Your task to perform on an android device: open app "Booking.com: Hotels and more" (install if not already installed) Image 0: 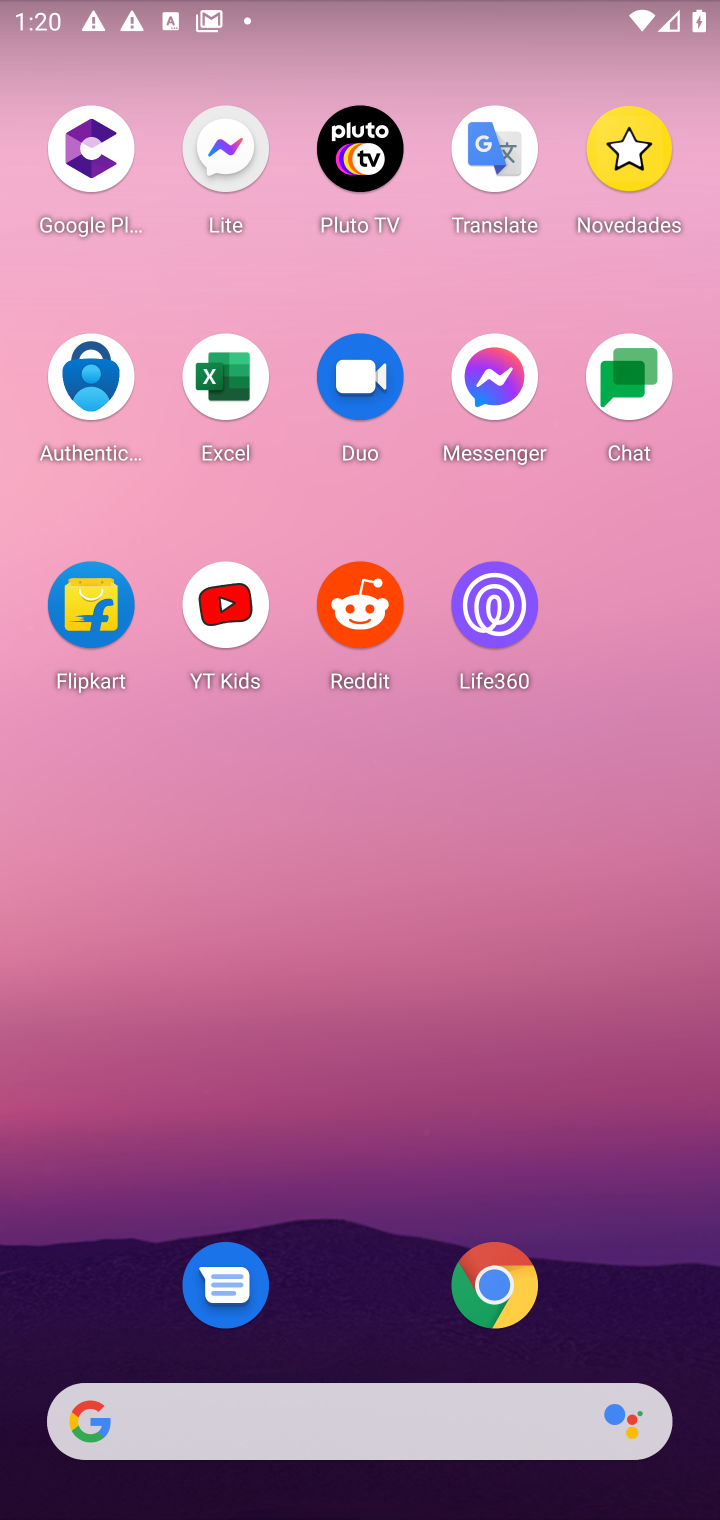
Step 0: drag from (385, 1050) to (429, 182)
Your task to perform on an android device: open app "Booking.com: Hotels and more" (install if not already installed) Image 1: 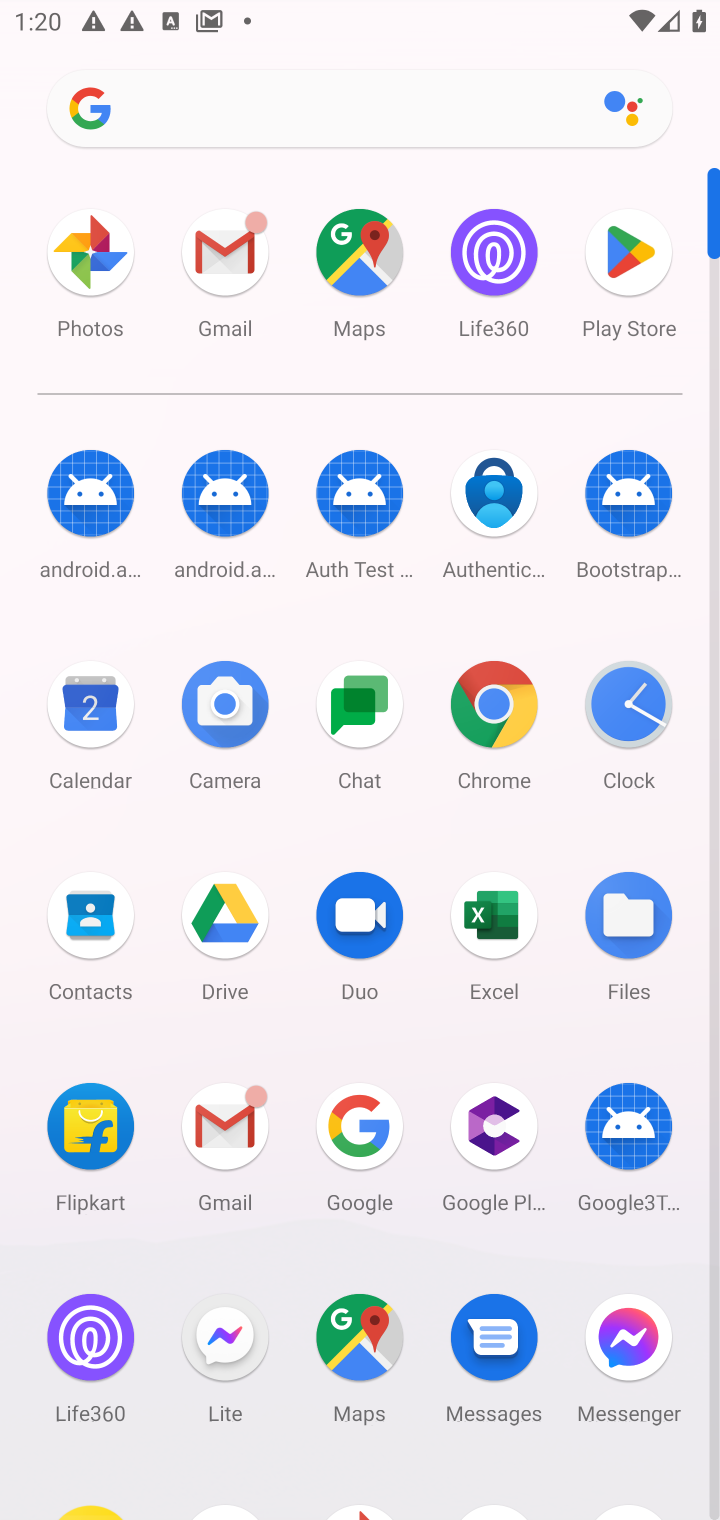
Step 1: drag from (440, 1236) to (437, 409)
Your task to perform on an android device: open app "Booking.com: Hotels and more" (install if not already installed) Image 2: 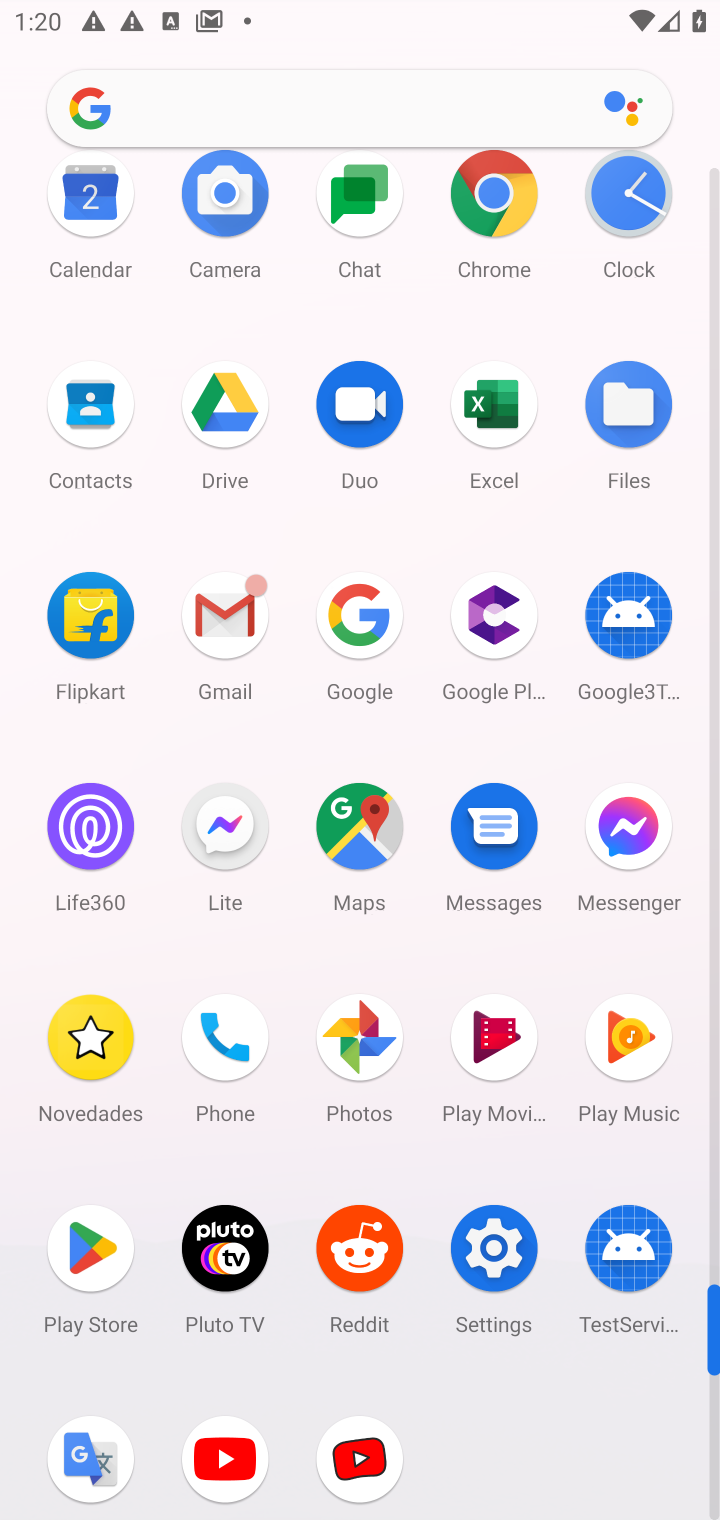
Step 2: click (96, 1266)
Your task to perform on an android device: open app "Booking.com: Hotels and more" (install if not already installed) Image 3: 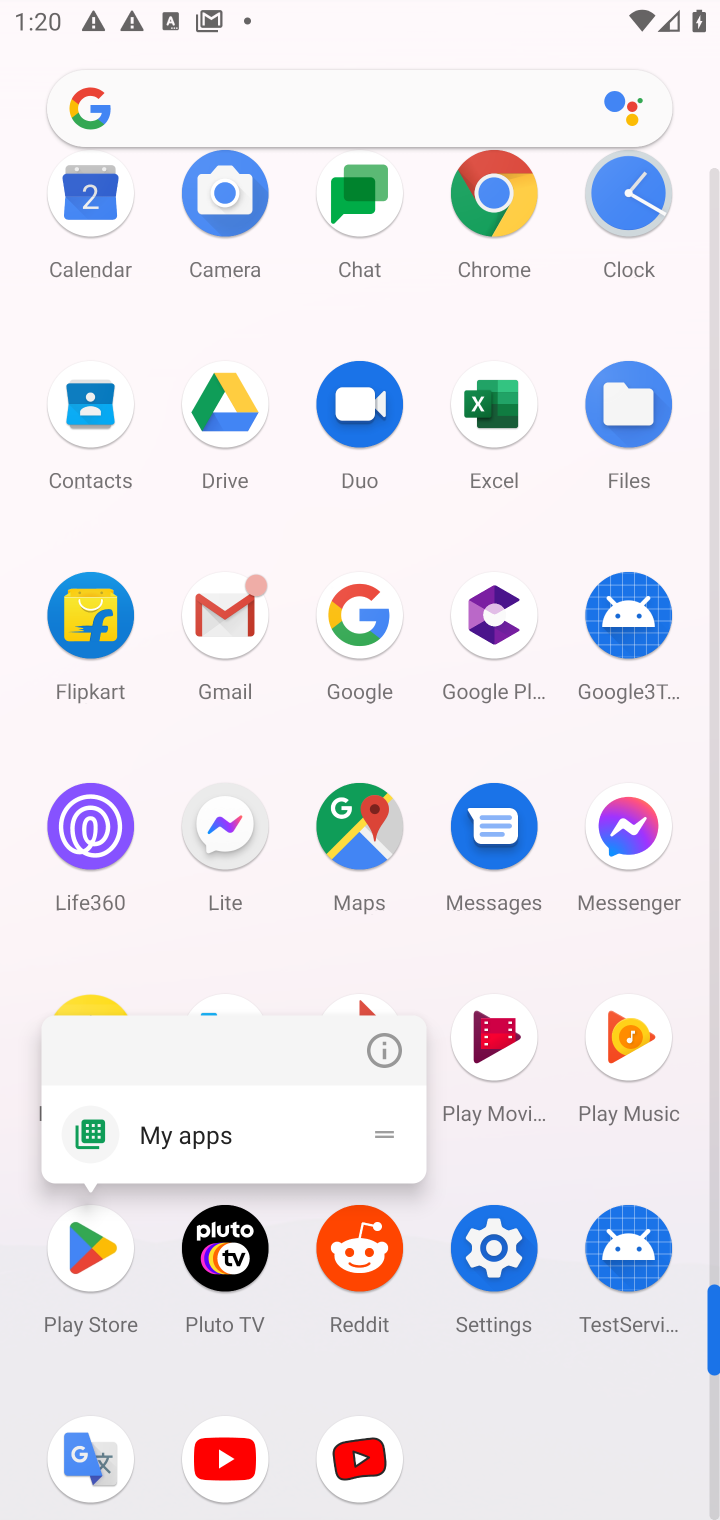
Step 3: click (106, 1255)
Your task to perform on an android device: open app "Booking.com: Hotels and more" (install if not already installed) Image 4: 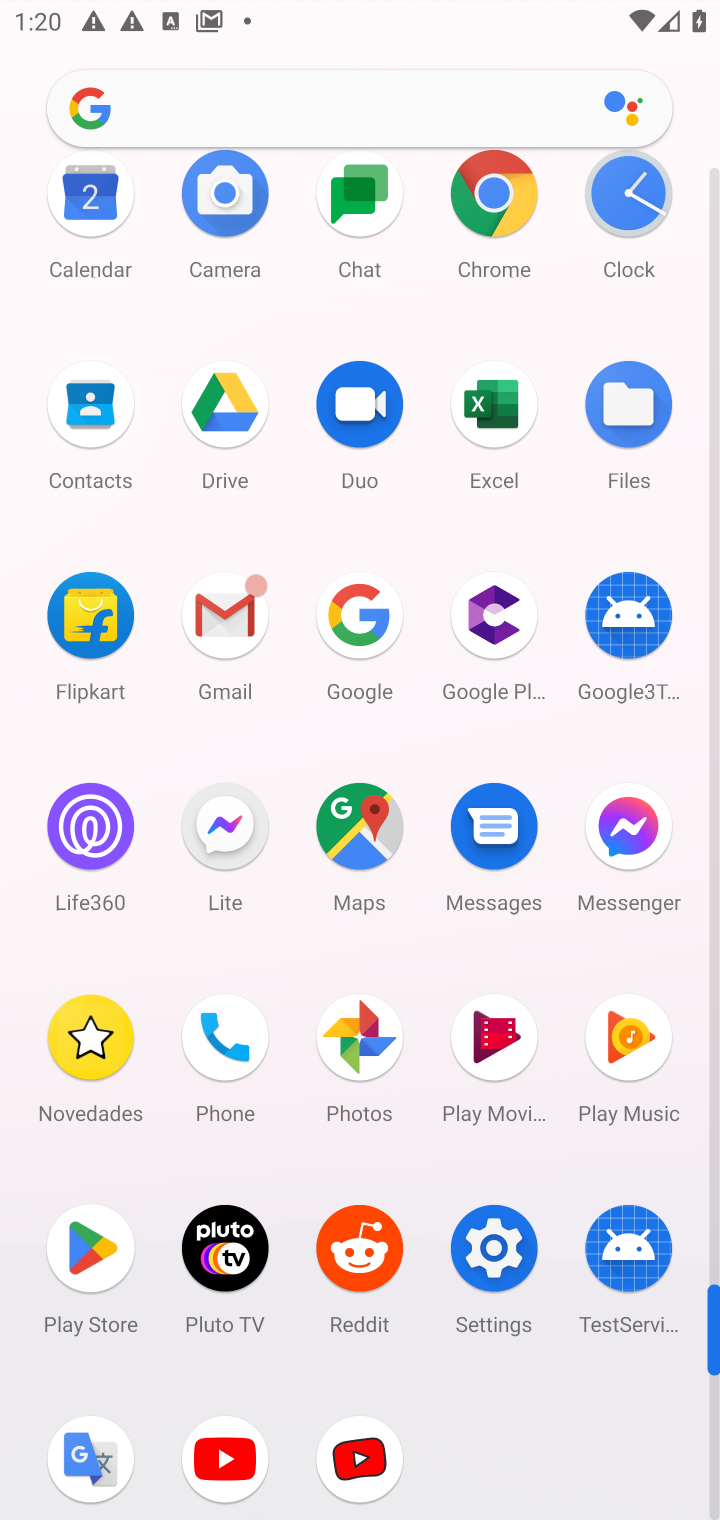
Step 4: click (94, 1255)
Your task to perform on an android device: open app "Booking.com: Hotels and more" (install if not already installed) Image 5: 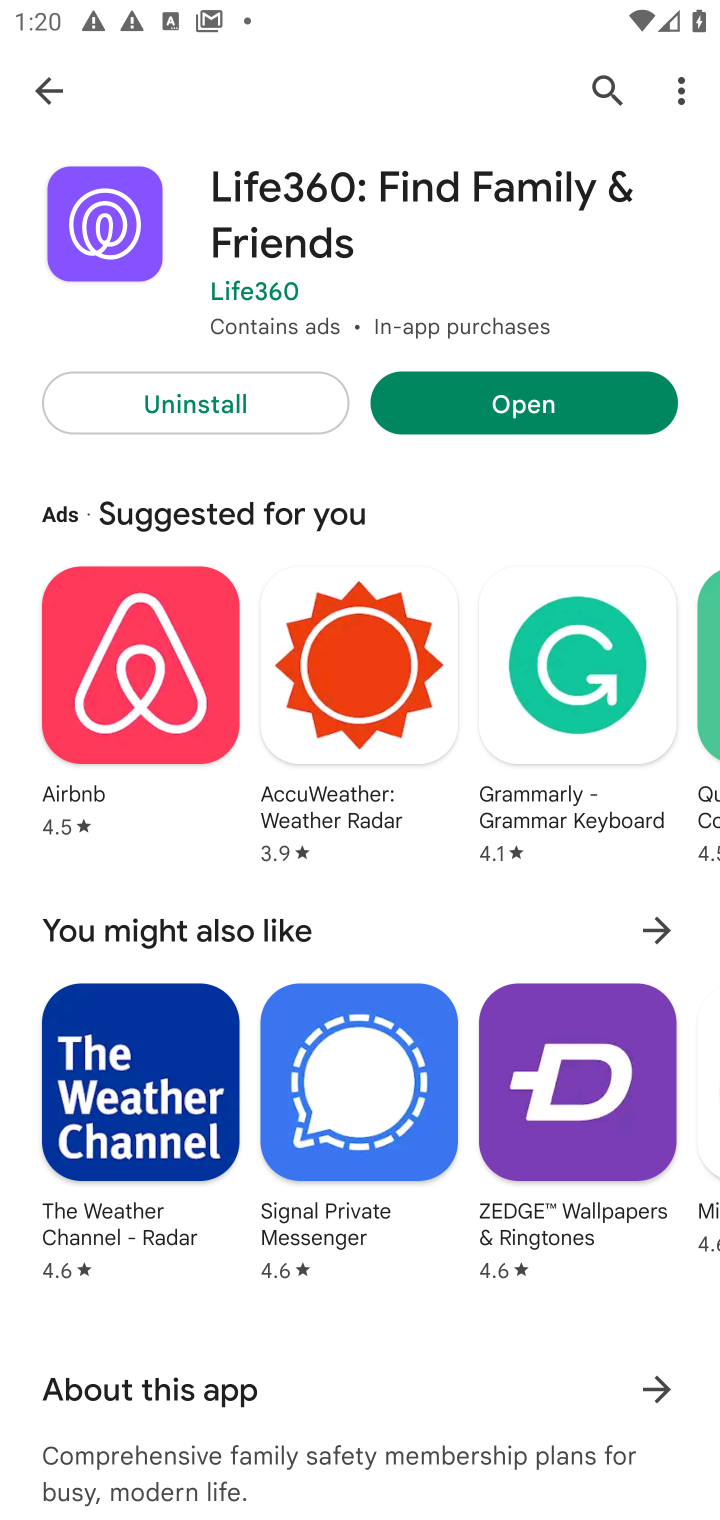
Step 5: click (607, 86)
Your task to perform on an android device: open app "Booking.com: Hotels and more" (install if not already installed) Image 6: 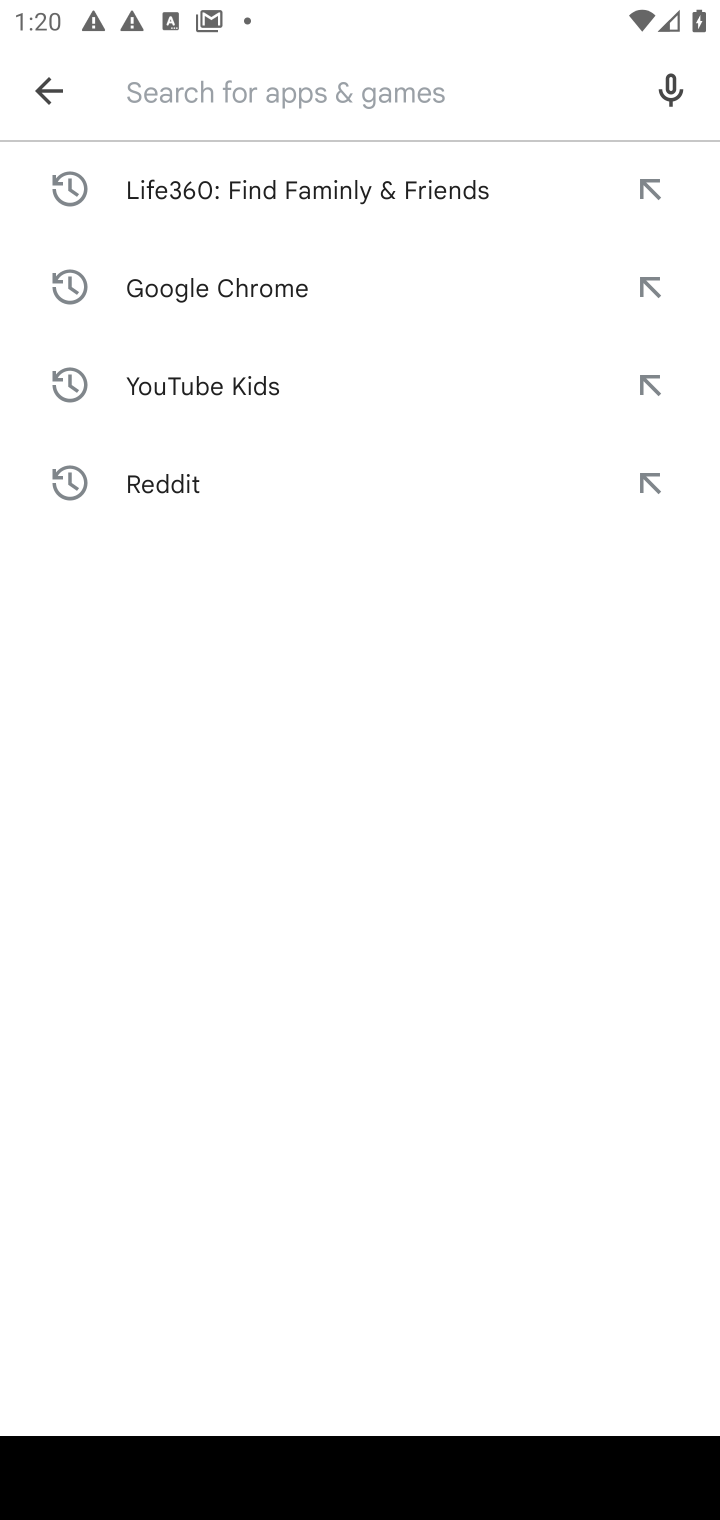
Step 6: type "Booking.com: Hotels and more"
Your task to perform on an android device: open app "Booking.com: Hotels and more" (install if not already installed) Image 7: 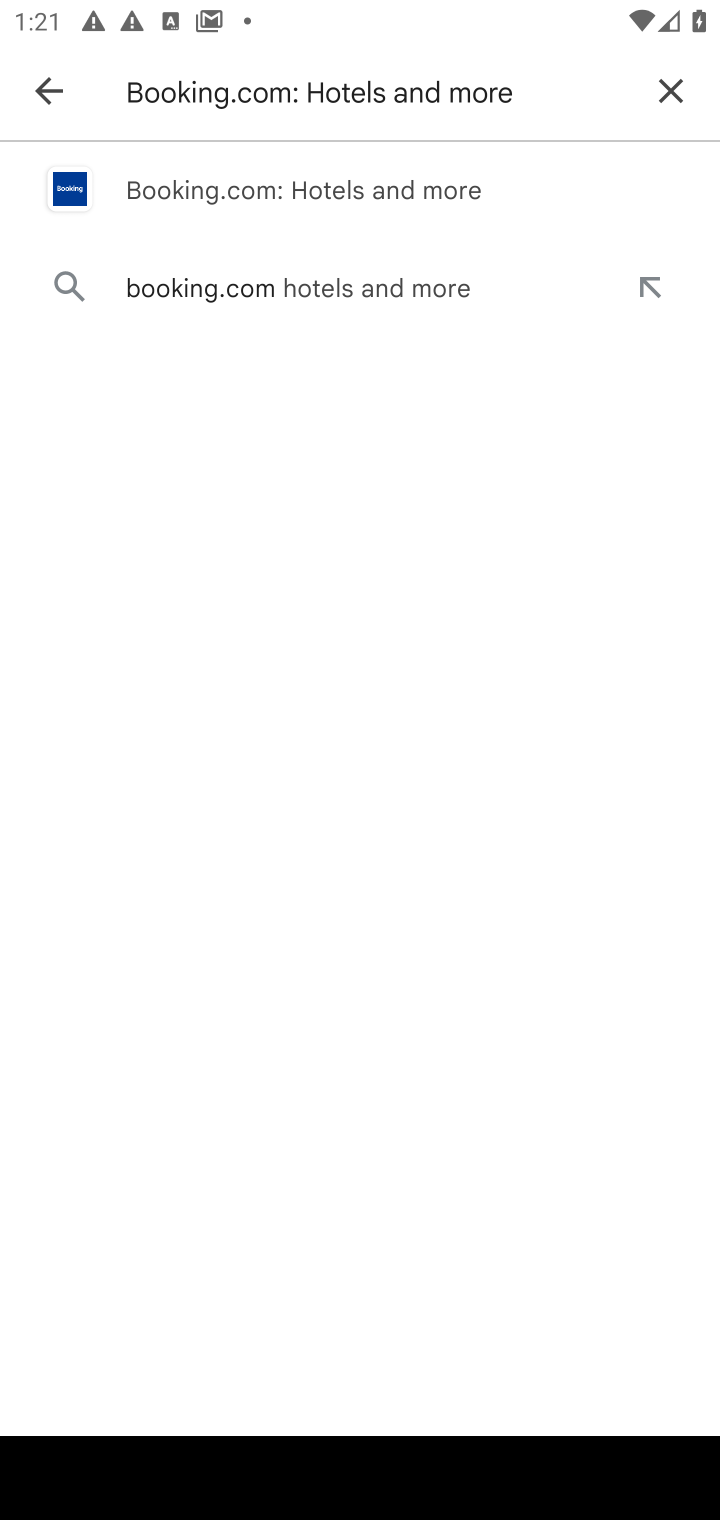
Step 7: press enter
Your task to perform on an android device: open app "Booking.com: Hotels and more" (install if not already installed) Image 8: 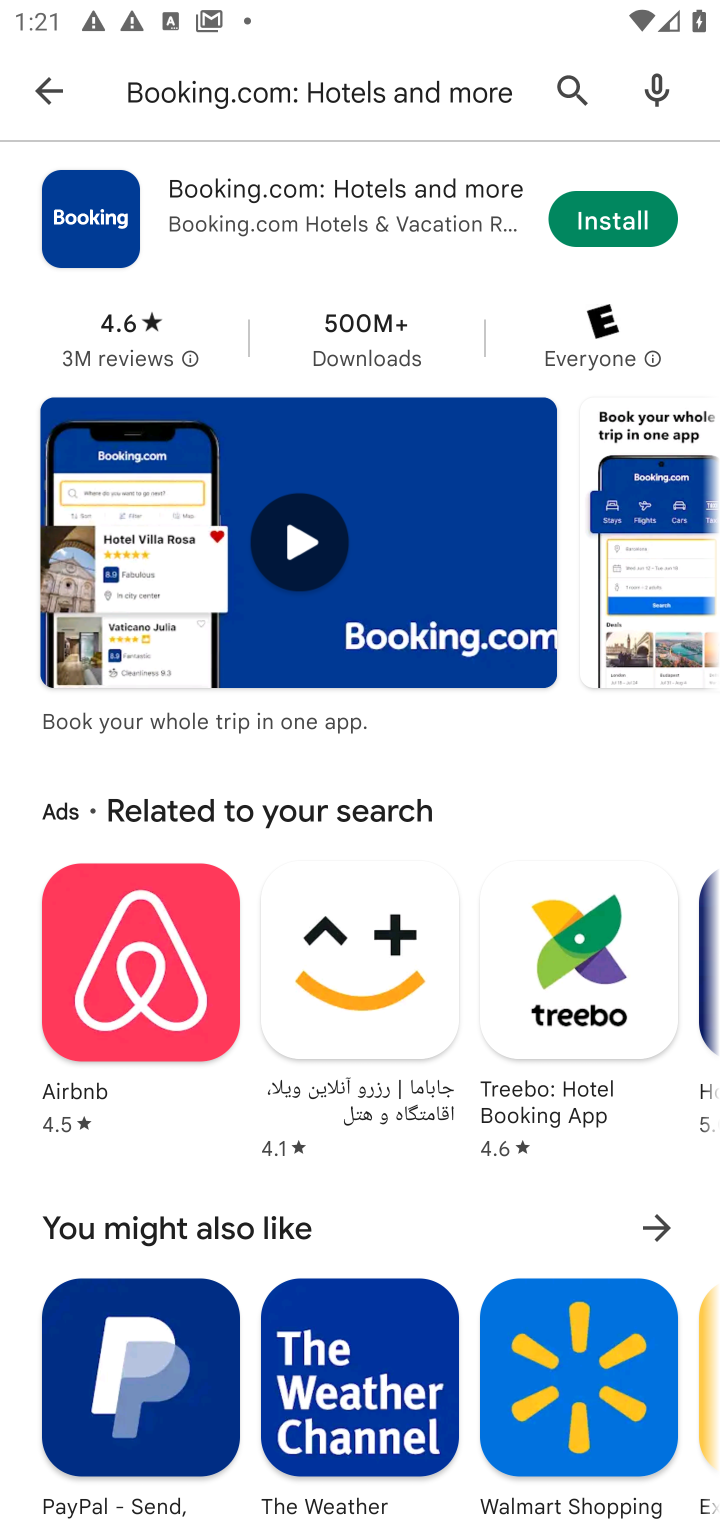
Step 8: click (582, 230)
Your task to perform on an android device: open app "Booking.com: Hotels and more" (install if not already installed) Image 9: 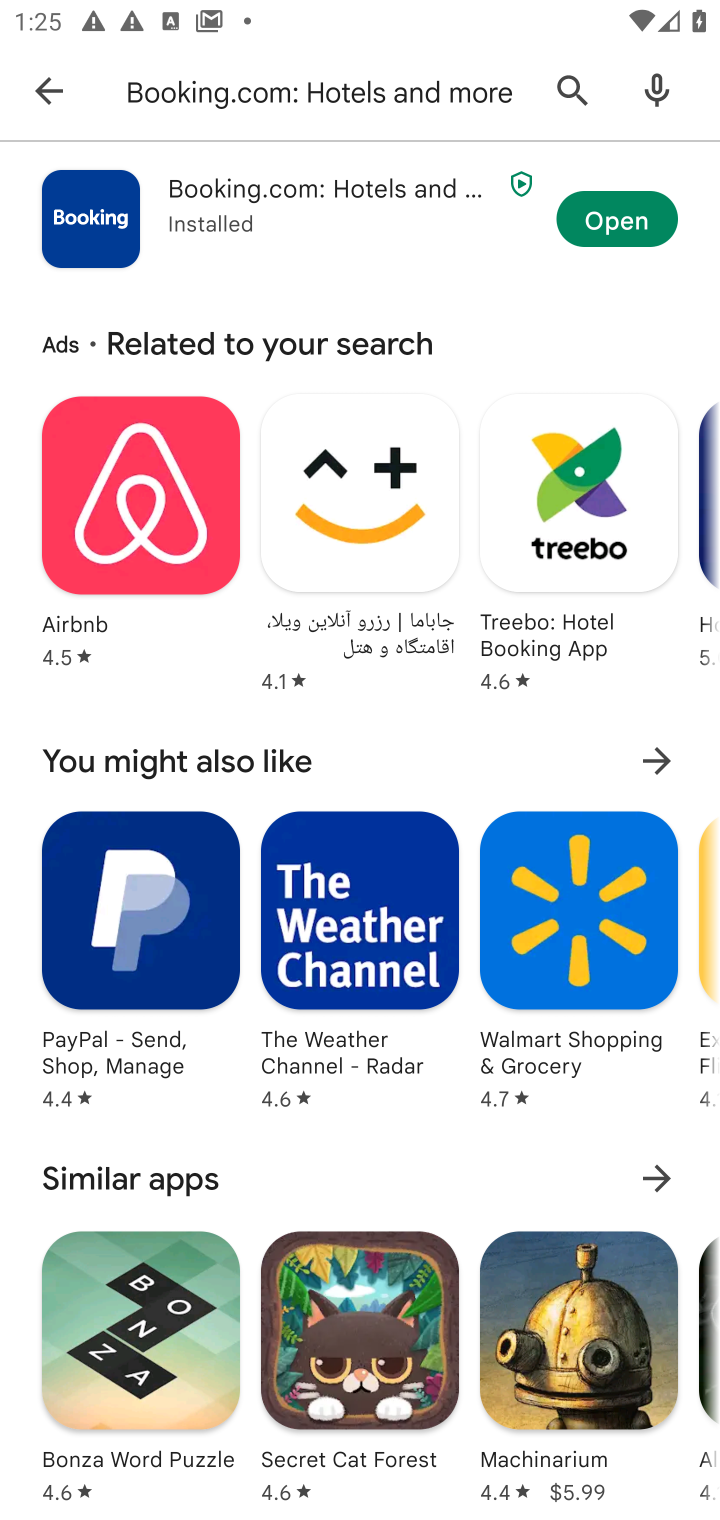
Step 9: click (641, 197)
Your task to perform on an android device: open app "Booking.com: Hotels and more" (install if not already installed) Image 10: 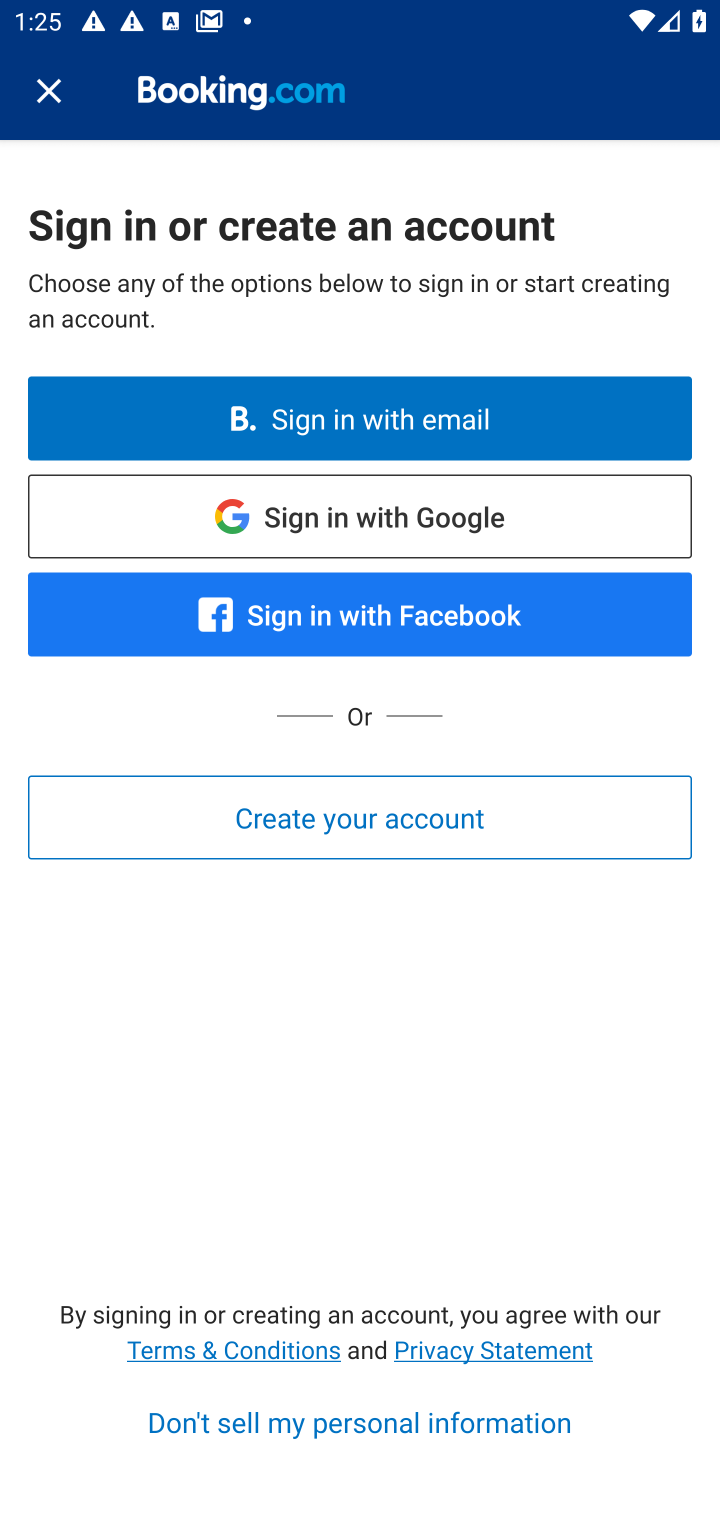
Step 10: task complete